Your task to perform on an android device: Go to location settings Image 0: 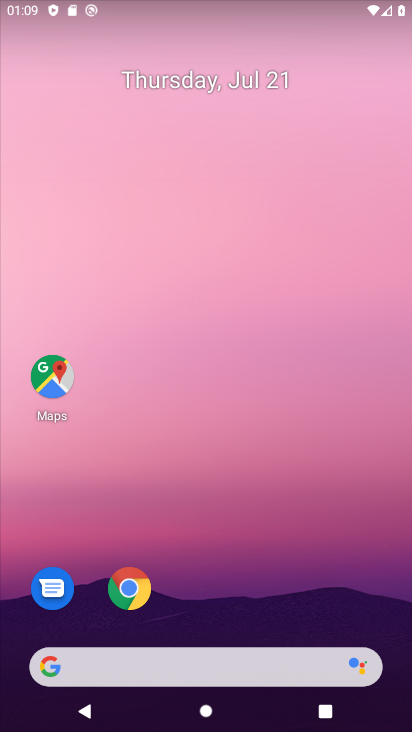
Step 0: drag from (305, 621) to (288, 185)
Your task to perform on an android device: Go to location settings Image 1: 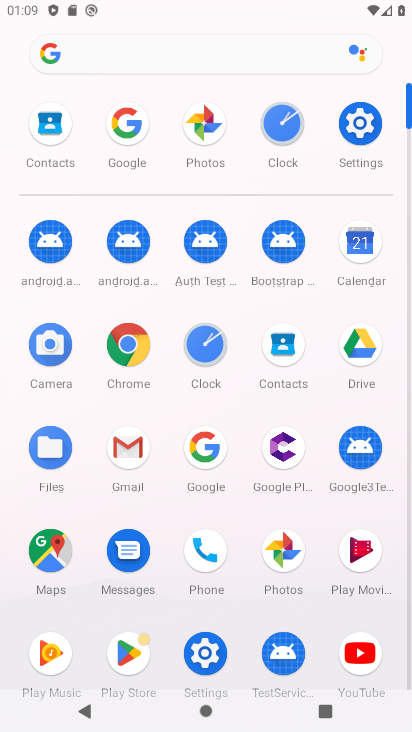
Step 1: click (200, 652)
Your task to perform on an android device: Go to location settings Image 2: 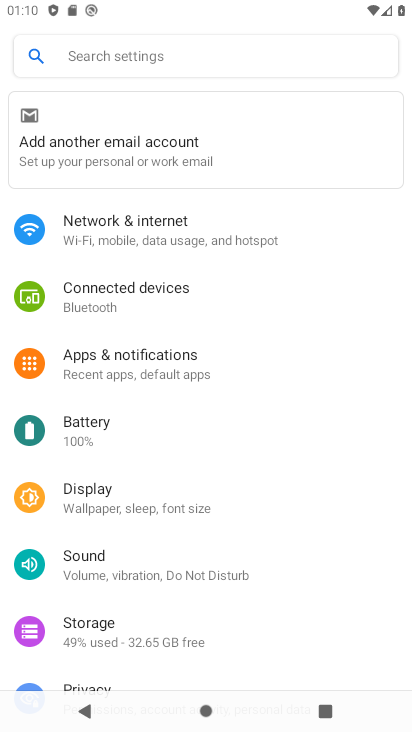
Step 2: drag from (199, 567) to (160, 293)
Your task to perform on an android device: Go to location settings Image 3: 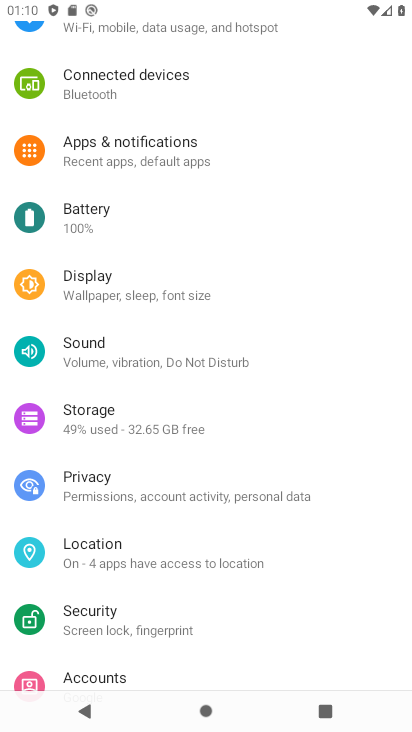
Step 3: click (100, 562)
Your task to perform on an android device: Go to location settings Image 4: 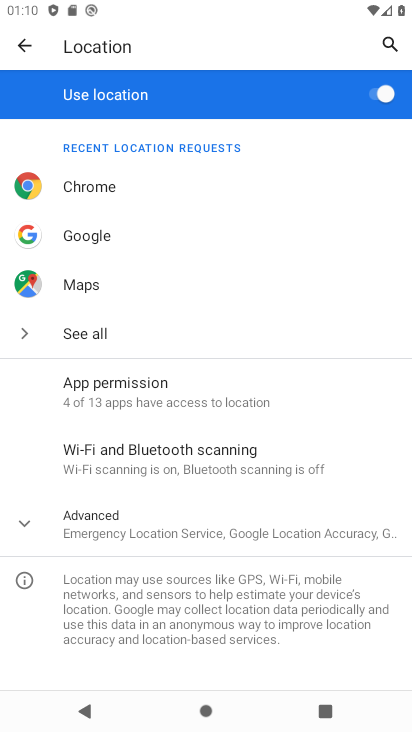
Step 4: task complete